Your task to perform on an android device: turn smart compose on in the gmail app Image 0: 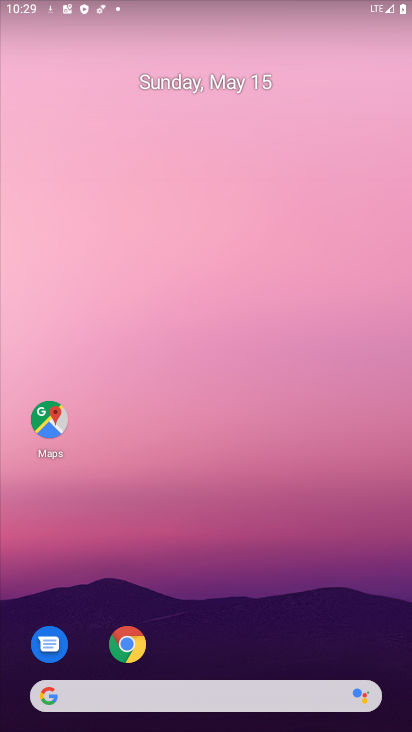
Step 0: drag from (320, 718) to (262, 279)
Your task to perform on an android device: turn smart compose on in the gmail app Image 1: 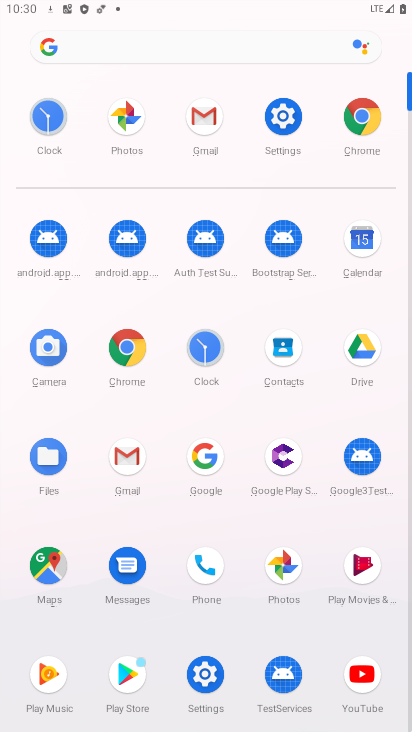
Step 1: click (130, 456)
Your task to perform on an android device: turn smart compose on in the gmail app Image 2: 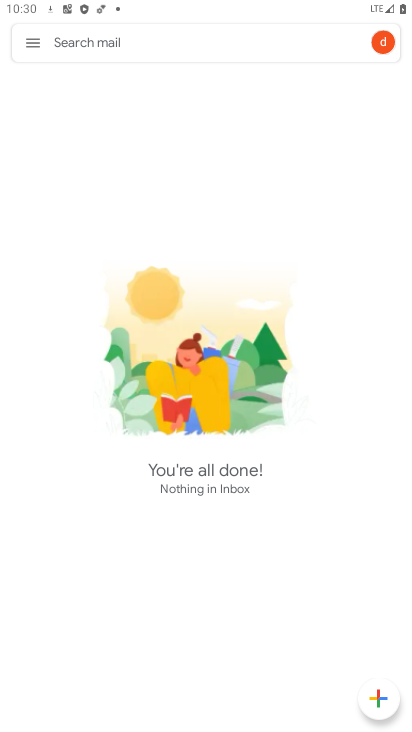
Step 2: click (23, 41)
Your task to perform on an android device: turn smart compose on in the gmail app Image 3: 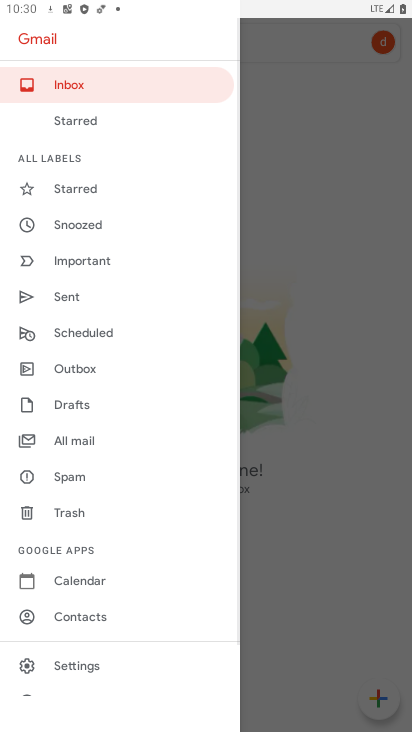
Step 3: click (89, 648)
Your task to perform on an android device: turn smart compose on in the gmail app Image 4: 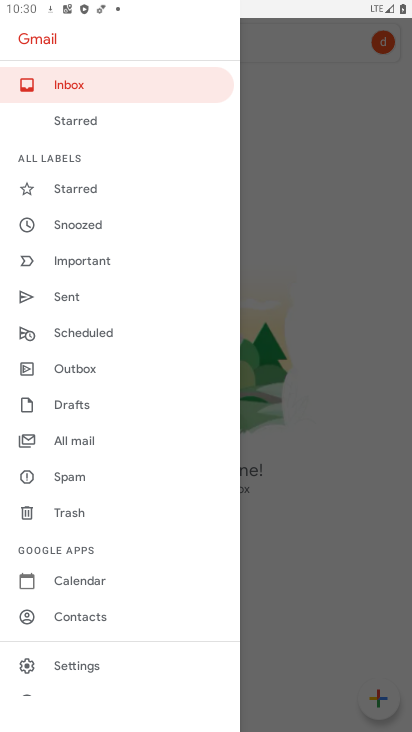
Step 4: click (98, 678)
Your task to perform on an android device: turn smart compose on in the gmail app Image 5: 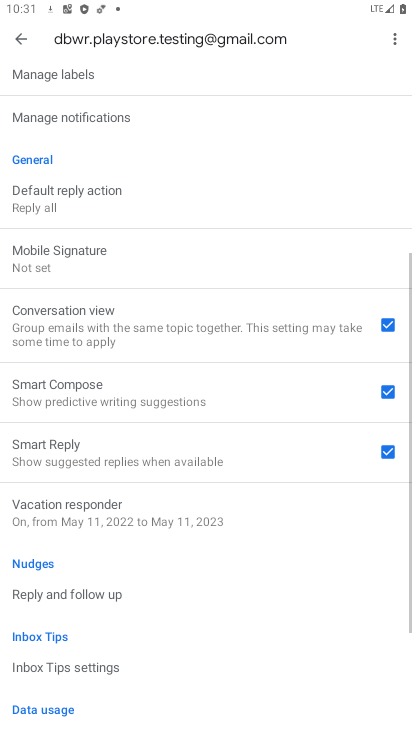
Step 5: drag from (192, 635) to (227, 408)
Your task to perform on an android device: turn smart compose on in the gmail app Image 6: 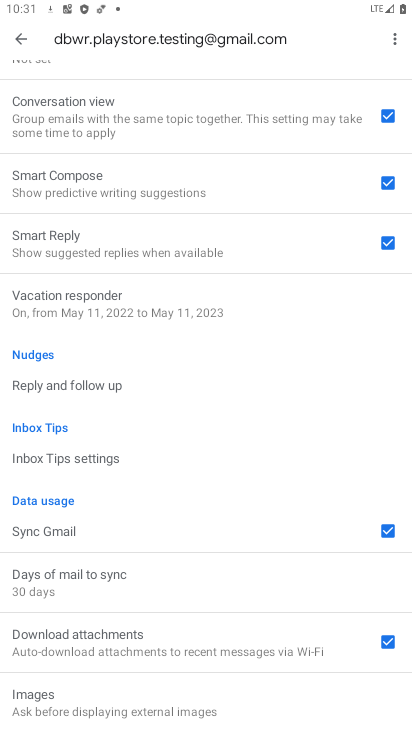
Step 6: click (301, 171)
Your task to perform on an android device: turn smart compose on in the gmail app Image 7: 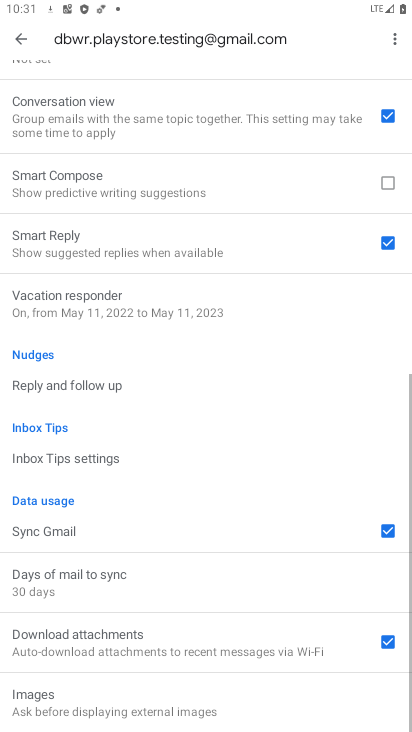
Step 7: click (301, 171)
Your task to perform on an android device: turn smart compose on in the gmail app Image 8: 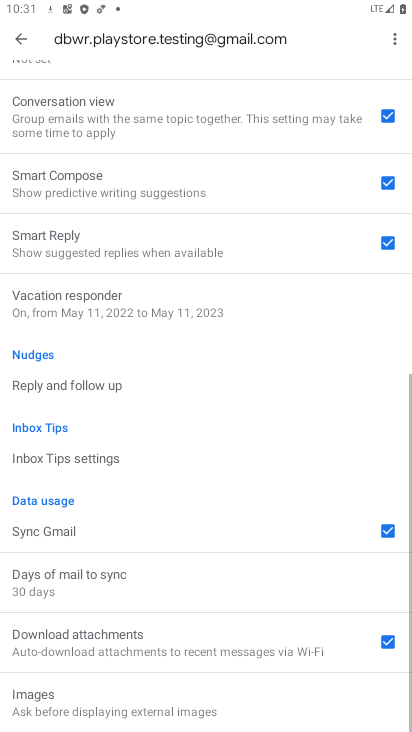
Step 8: task complete